Your task to perform on an android device: Search for Italian restaurants on Maps Image 0: 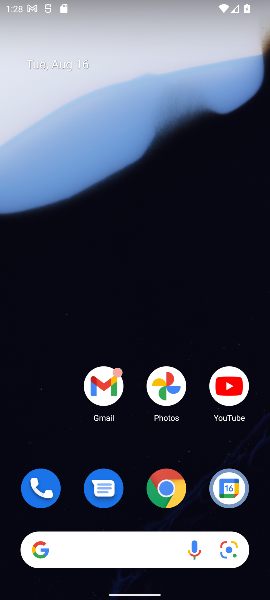
Step 0: task complete